Your task to perform on an android device: check battery use Image 0: 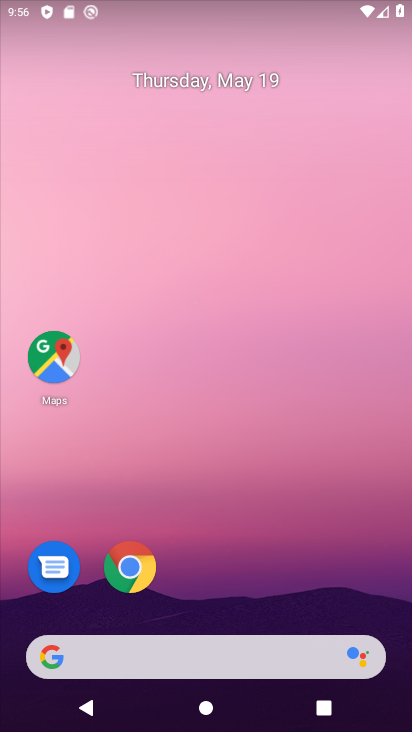
Step 0: drag from (395, 616) to (335, 40)
Your task to perform on an android device: check battery use Image 1: 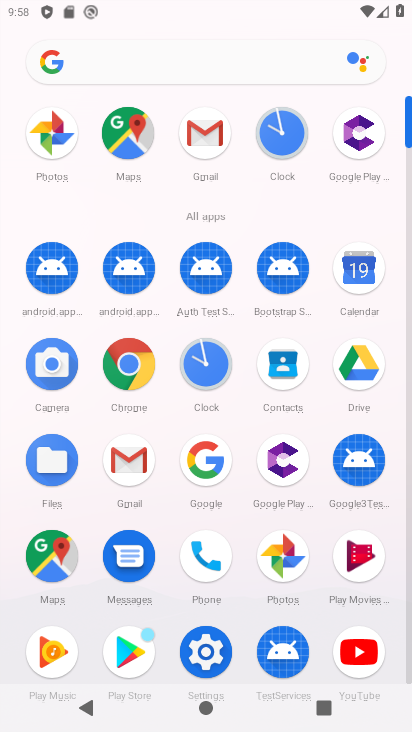
Step 1: click (203, 652)
Your task to perform on an android device: check battery use Image 2: 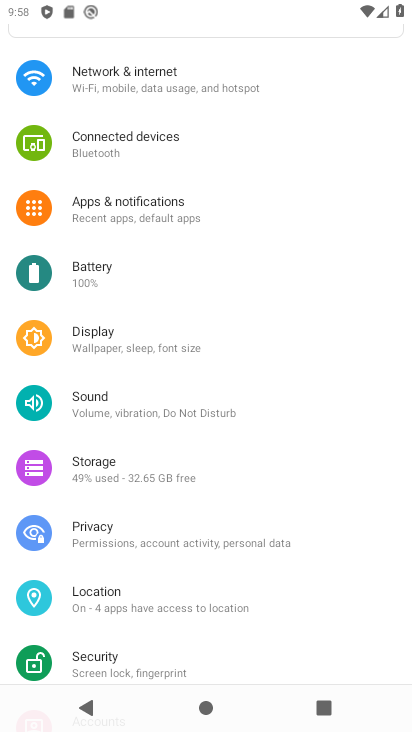
Step 2: click (95, 277)
Your task to perform on an android device: check battery use Image 3: 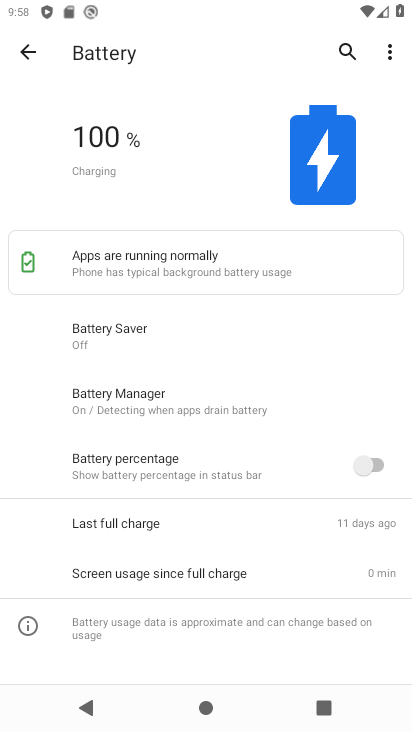
Step 3: click (392, 54)
Your task to perform on an android device: check battery use Image 4: 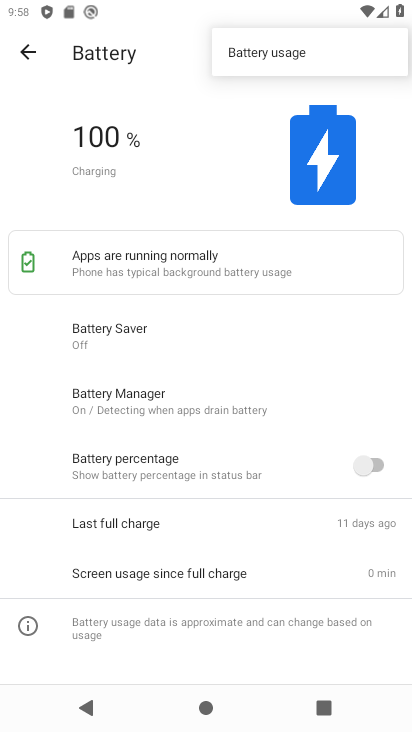
Step 4: click (263, 50)
Your task to perform on an android device: check battery use Image 5: 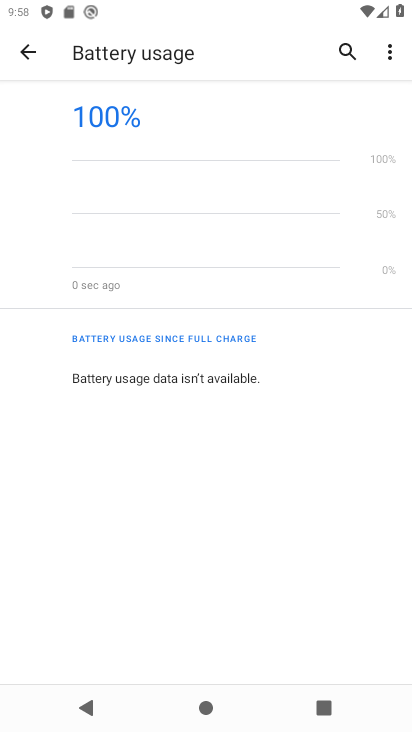
Step 5: task complete